Your task to perform on an android device: Open network settings Image 0: 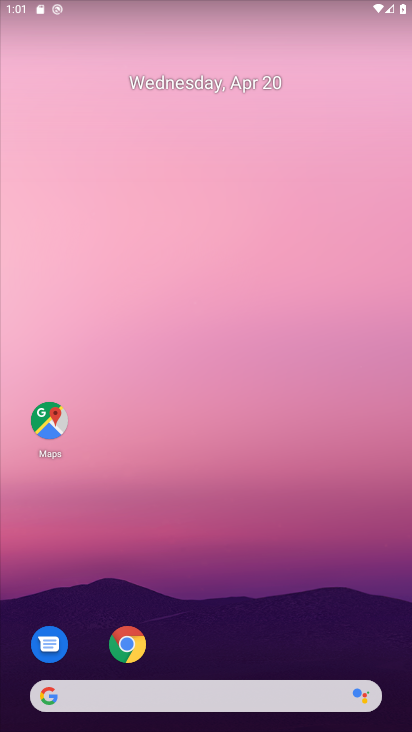
Step 0: drag from (254, 578) to (297, 72)
Your task to perform on an android device: Open network settings Image 1: 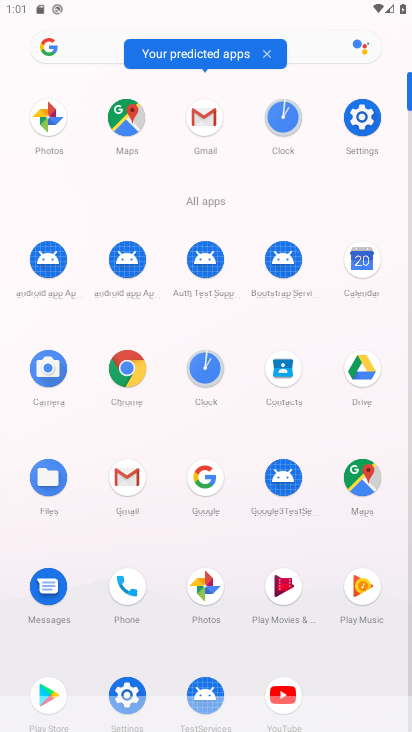
Step 1: click (365, 130)
Your task to perform on an android device: Open network settings Image 2: 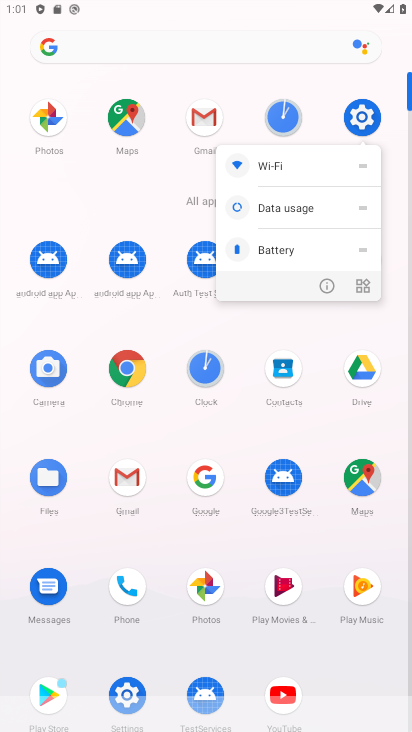
Step 2: click (356, 125)
Your task to perform on an android device: Open network settings Image 3: 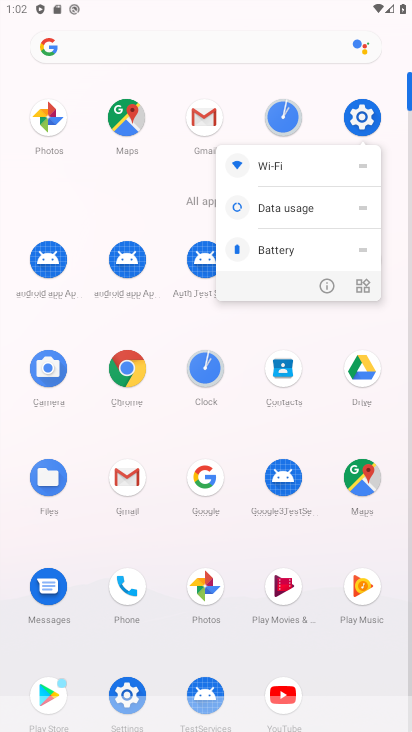
Step 3: click (366, 112)
Your task to perform on an android device: Open network settings Image 4: 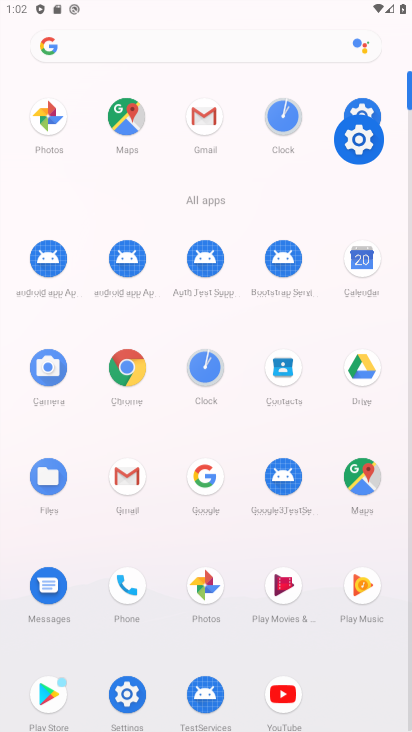
Step 4: click (366, 112)
Your task to perform on an android device: Open network settings Image 5: 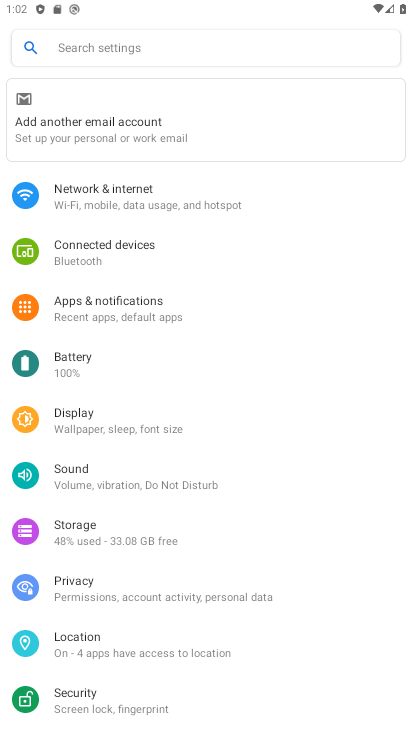
Step 5: click (102, 192)
Your task to perform on an android device: Open network settings Image 6: 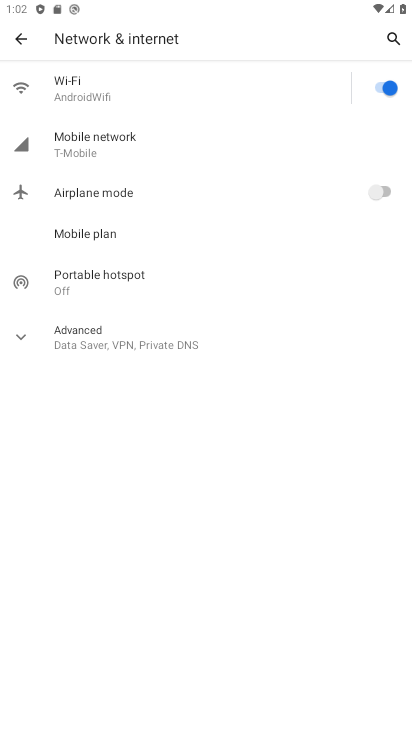
Step 6: click (115, 155)
Your task to perform on an android device: Open network settings Image 7: 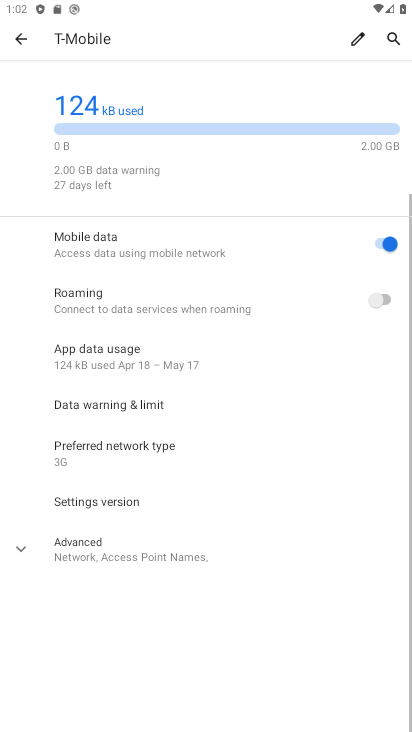
Step 7: task complete